Your task to perform on an android device: Open calendar and show me the fourth week of next month Image 0: 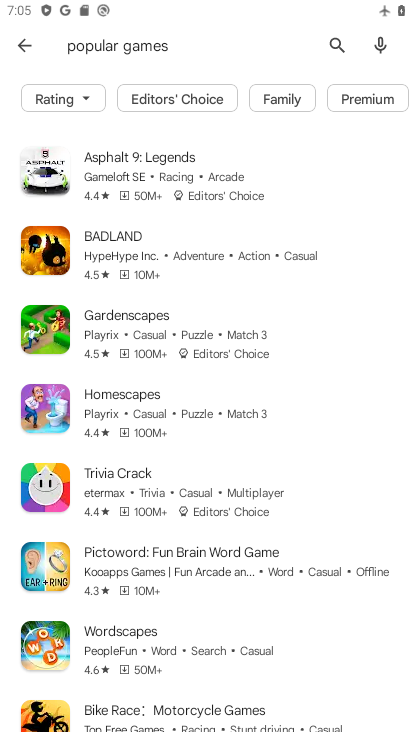
Step 0: task complete